Your task to perform on an android device: Go to eBay Image 0: 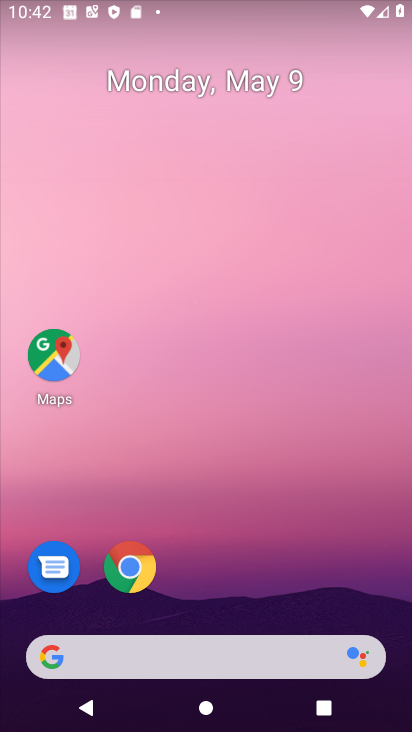
Step 0: click (130, 567)
Your task to perform on an android device: Go to eBay Image 1: 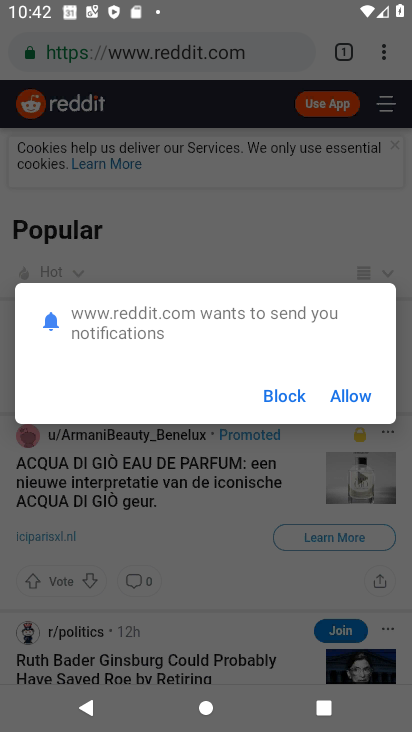
Step 1: click (353, 395)
Your task to perform on an android device: Go to eBay Image 2: 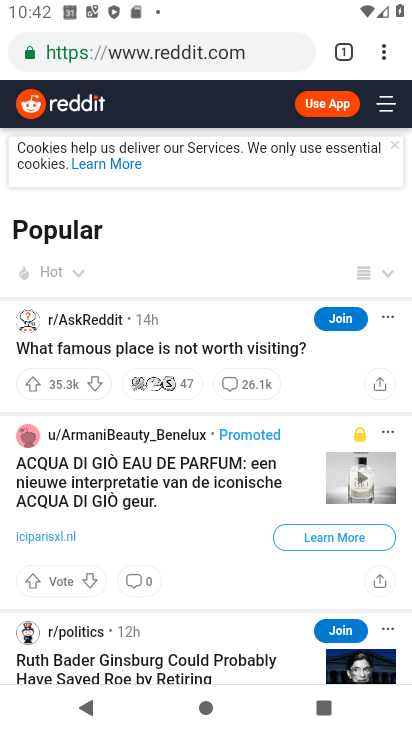
Step 2: click (174, 50)
Your task to perform on an android device: Go to eBay Image 3: 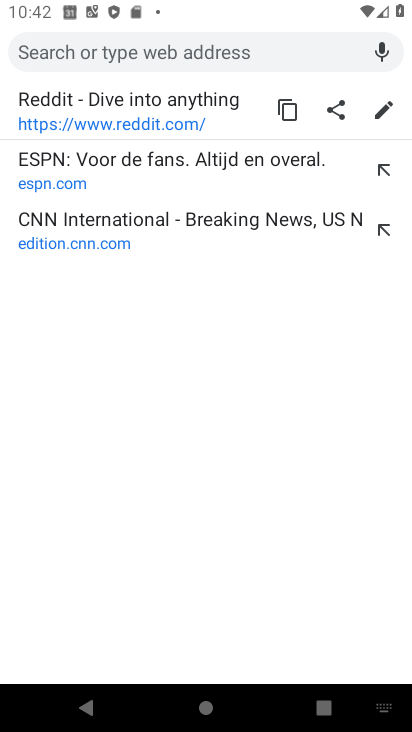
Step 3: type "ebay.com"
Your task to perform on an android device: Go to eBay Image 4: 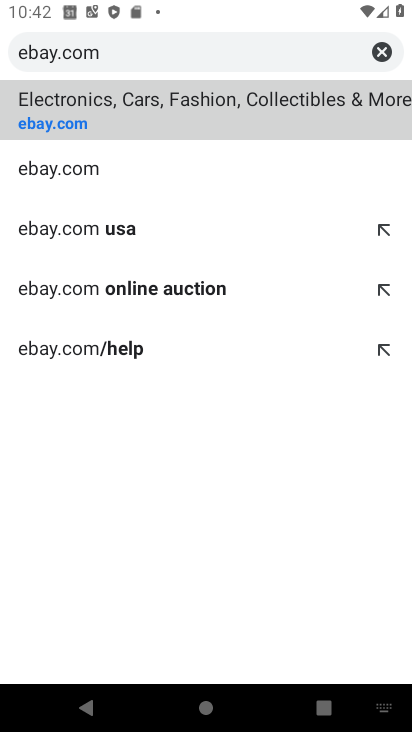
Step 4: click (233, 79)
Your task to perform on an android device: Go to eBay Image 5: 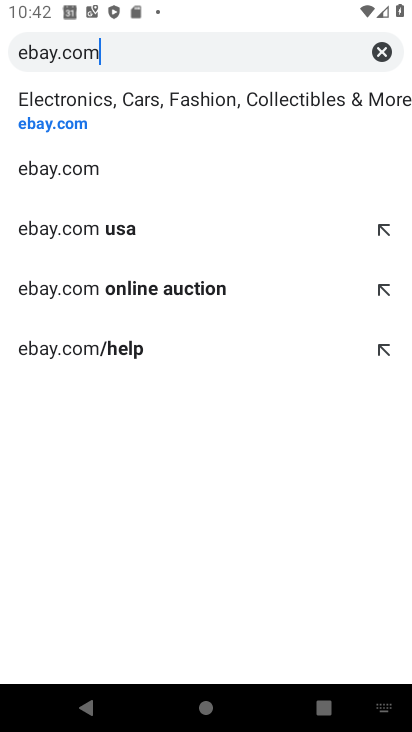
Step 5: click (90, 99)
Your task to perform on an android device: Go to eBay Image 6: 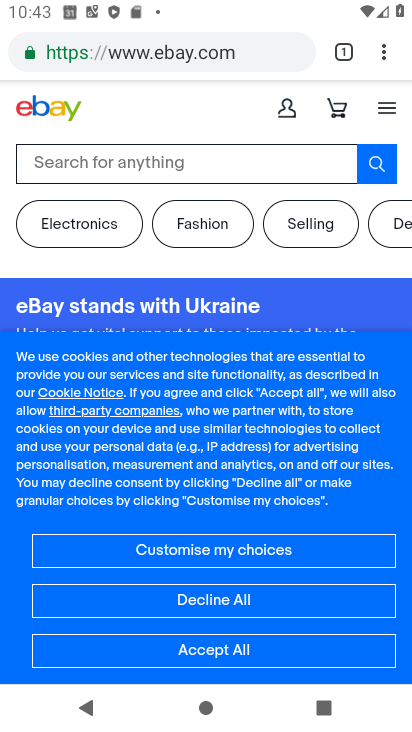
Step 6: task complete